Your task to perform on an android device: Open Google Chrome Image 0: 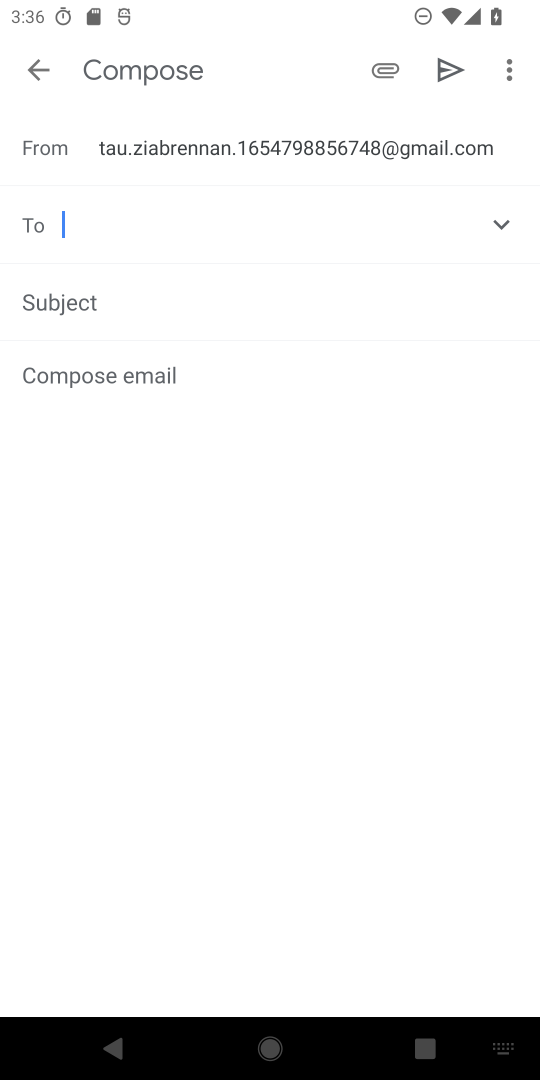
Step 0: press home button
Your task to perform on an android device: Open Google Chrome Image 1: 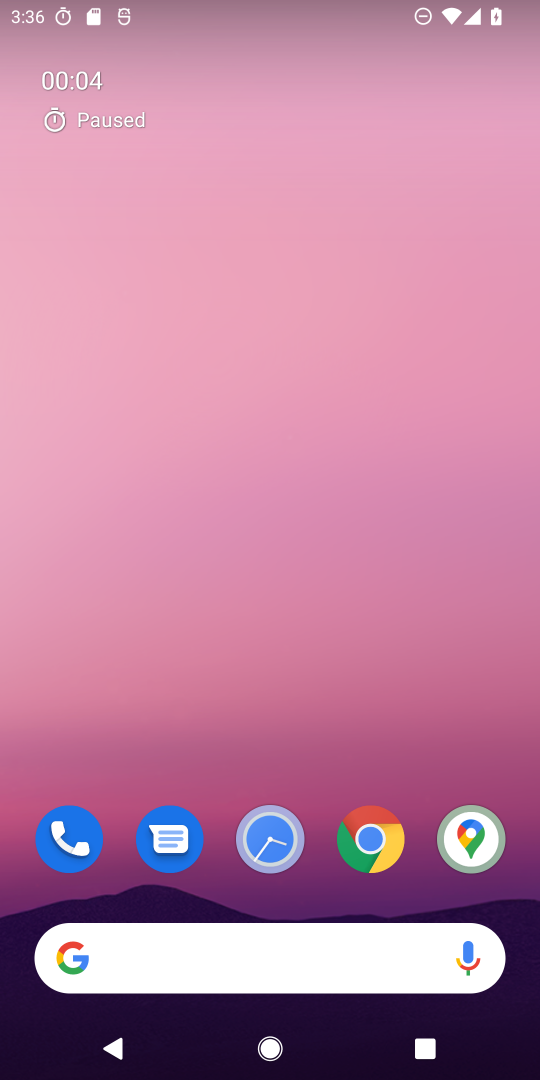
Step 1: click (375, 842)
Your task to perform on an android device: Open Google Chrome Image 2: 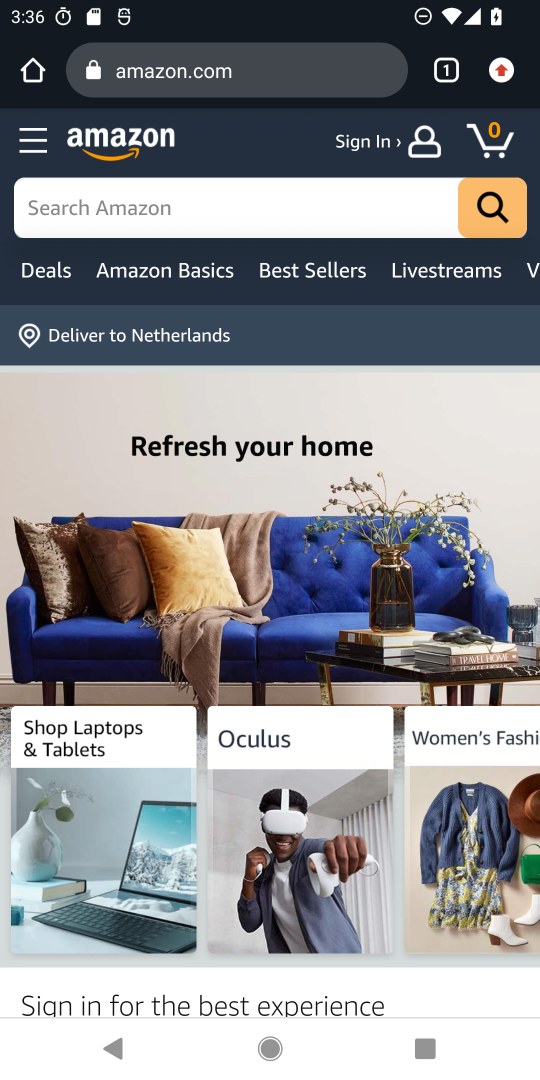
Step 2: task complete